Your task to perform on an android device: Open calendar and show me the first week of next month Image 0: 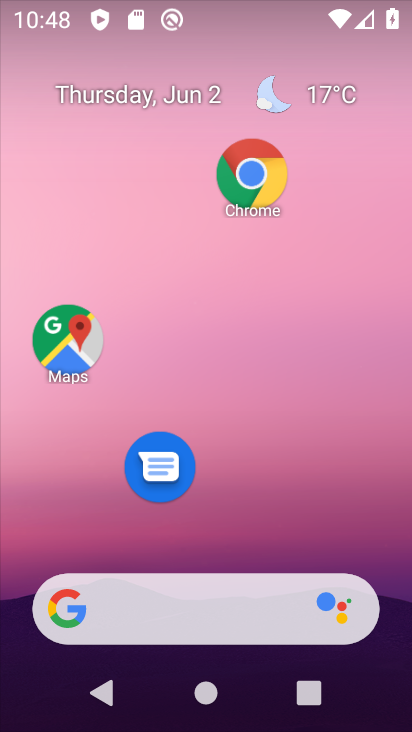
Step 0: drag from (243, 501) to (257, 140)
Your task to perform on an android device: Open calendar and show me the first week of next month Image 1: 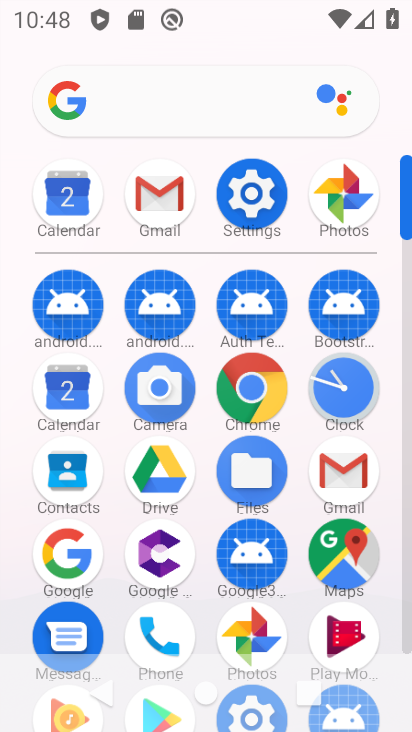
Step 1: click (59, 205)
Your task to perform on an android device: Open calendar and show me the first week of next month Image 2: 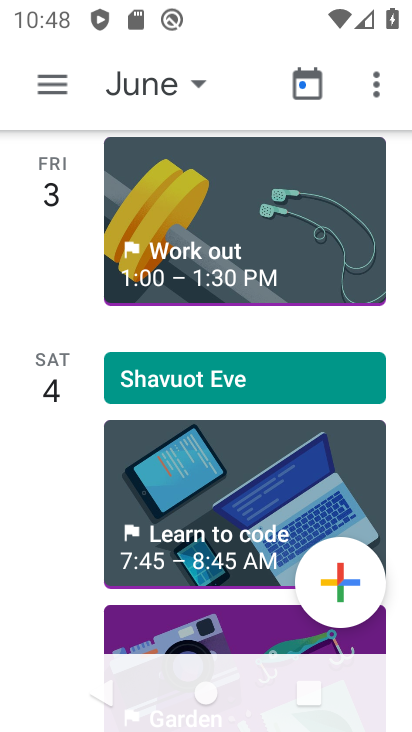
Step 2: click (201, 90)
Your task to perform on an android device: Open calendar and show me the first week of next month Image 3: 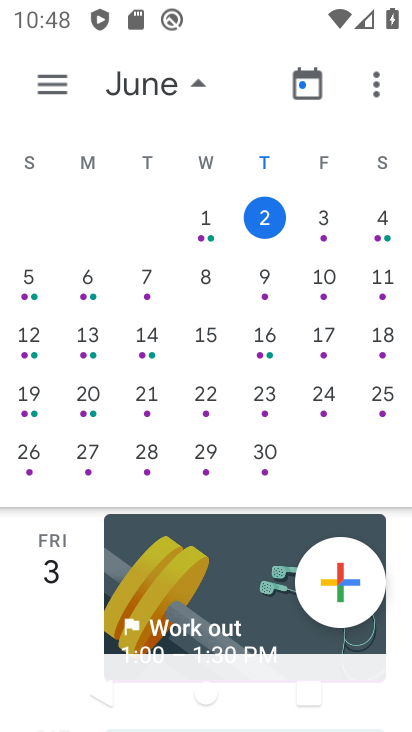
Step 3: drag from (348, 264) to (99, 272)
Your task to perform on an android device: Open calendar and show me the first week of next month Image 4: 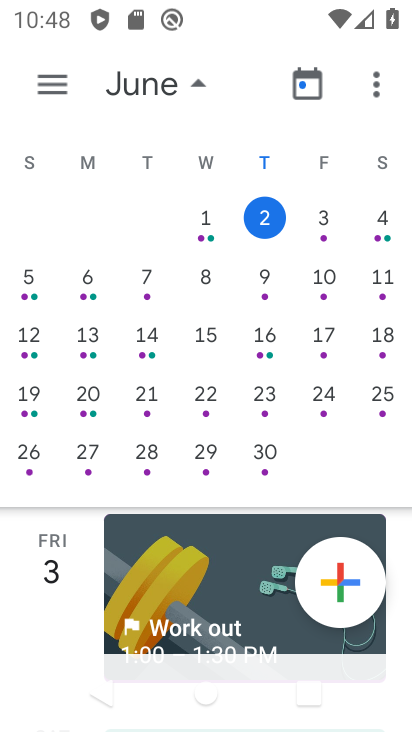
Step 4: drag from (325, 251) to (41, 241)
Your task to perform on an android device: Open calendar and show me the first week of next month Image 5: 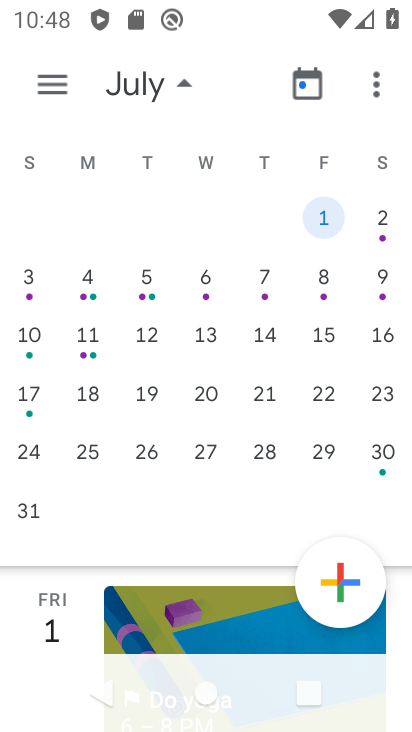
Step 5: click (325, 213)
Your task to perform on an android device: Open calendar and show me the first week of next month Image 6: 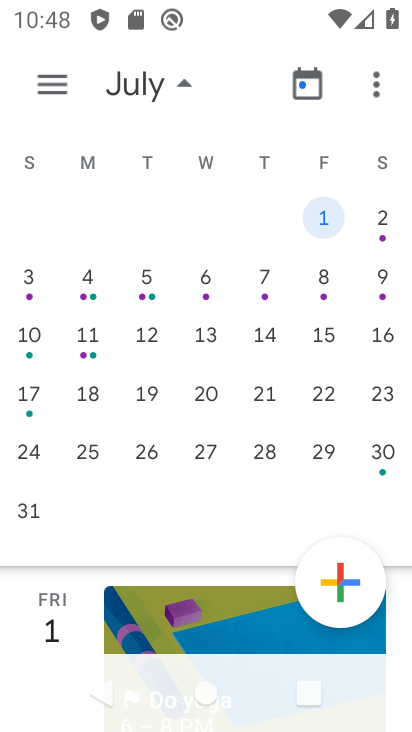
Step 6: click (64, 633)
Your task to perform on an android device: Open calendar and show me the first week of next month Image 7: 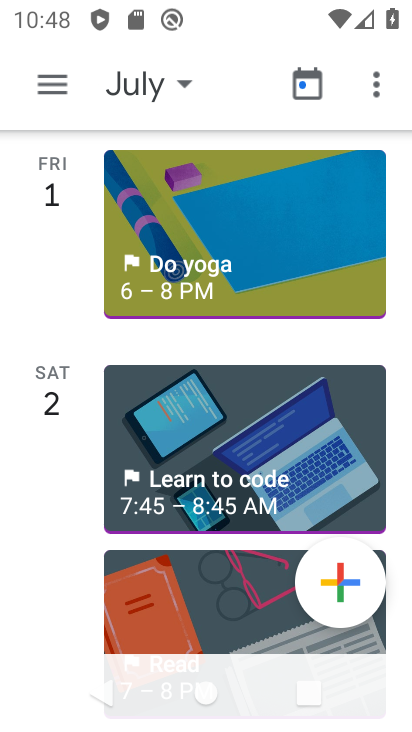
Step 7: task complete